Your task to perform on an android device: check storage Image 0: 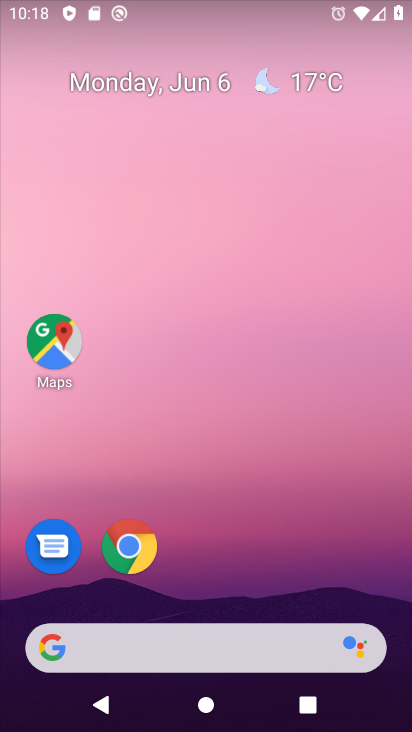
Step 0: click (140, 547)
Your task to perform on an android device: check storage Image 1: 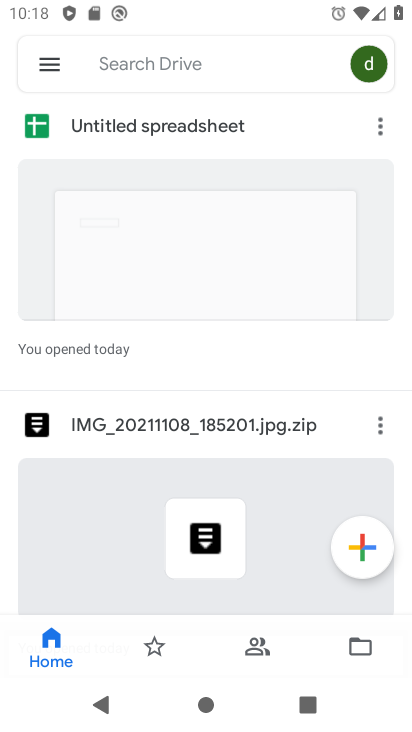
Step 1: press home button
Your task to perform on an android device: check storage Image 2: 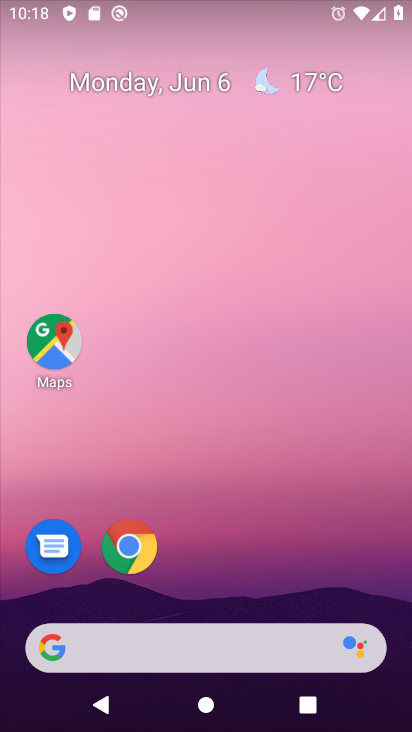
Step 2: drag from (249, 604) to (295, 127)
Your task to perform on an android device: check storage Image 3: 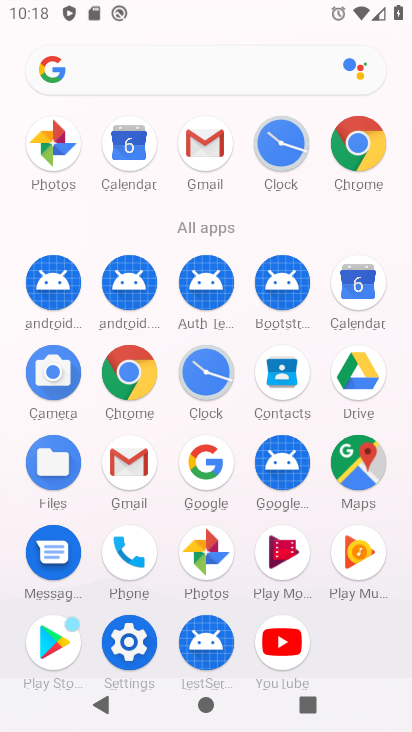
Step 3: click (141, 637)
Your task to perform on an android device: check storage Image 4: 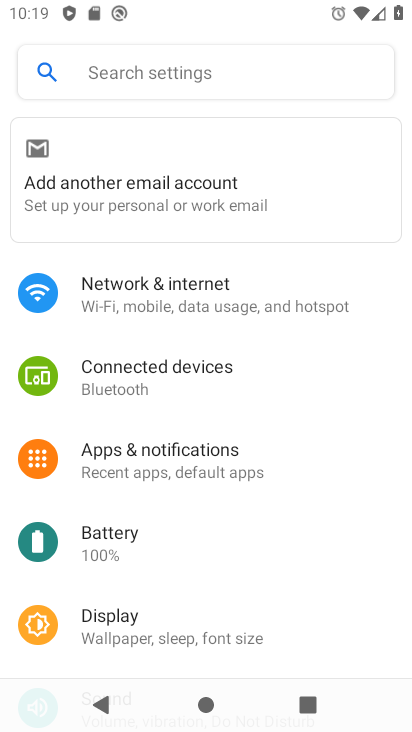
Step 4: drag from (175, 603) to (261, 180)
Your task to perform on an android device: check storage Image 5: 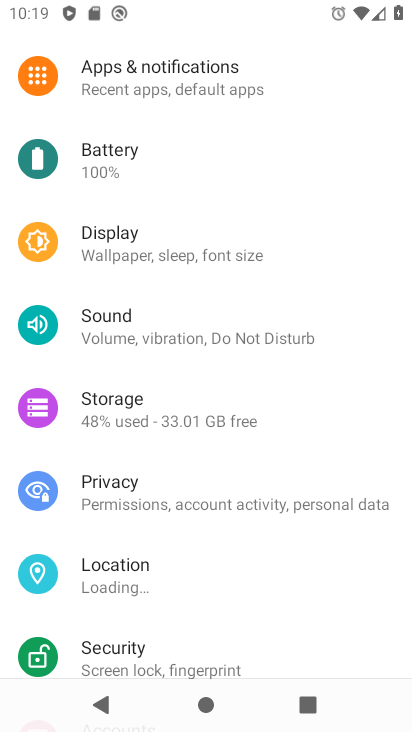
Step 5: drag from (227, 535) to (239, 368)
Your task to perform on an android device: check storage Image 6: 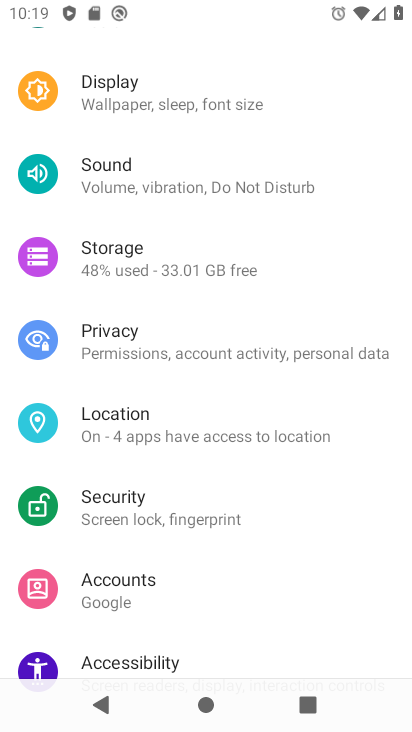
Step 6: click (141, 271)
Your task to perform on an android device: check storage Image 7: 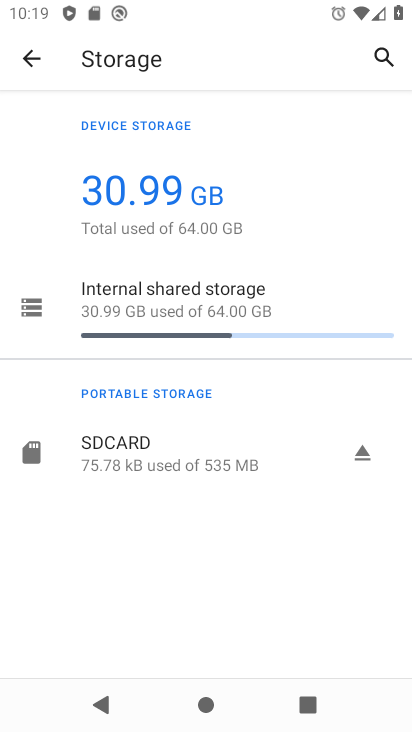
Step 7: click (210, 287)
Your task to perform on an android device: check storage Image 8: 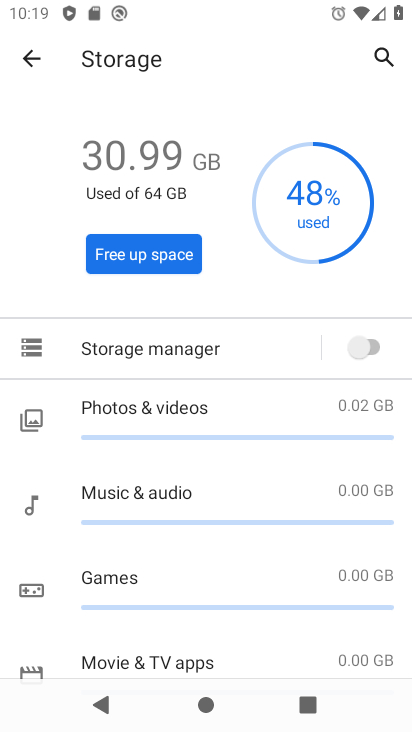
Step 8: task complete